Your task to perform on an android device: turn on translation in the chrome app Image 0: 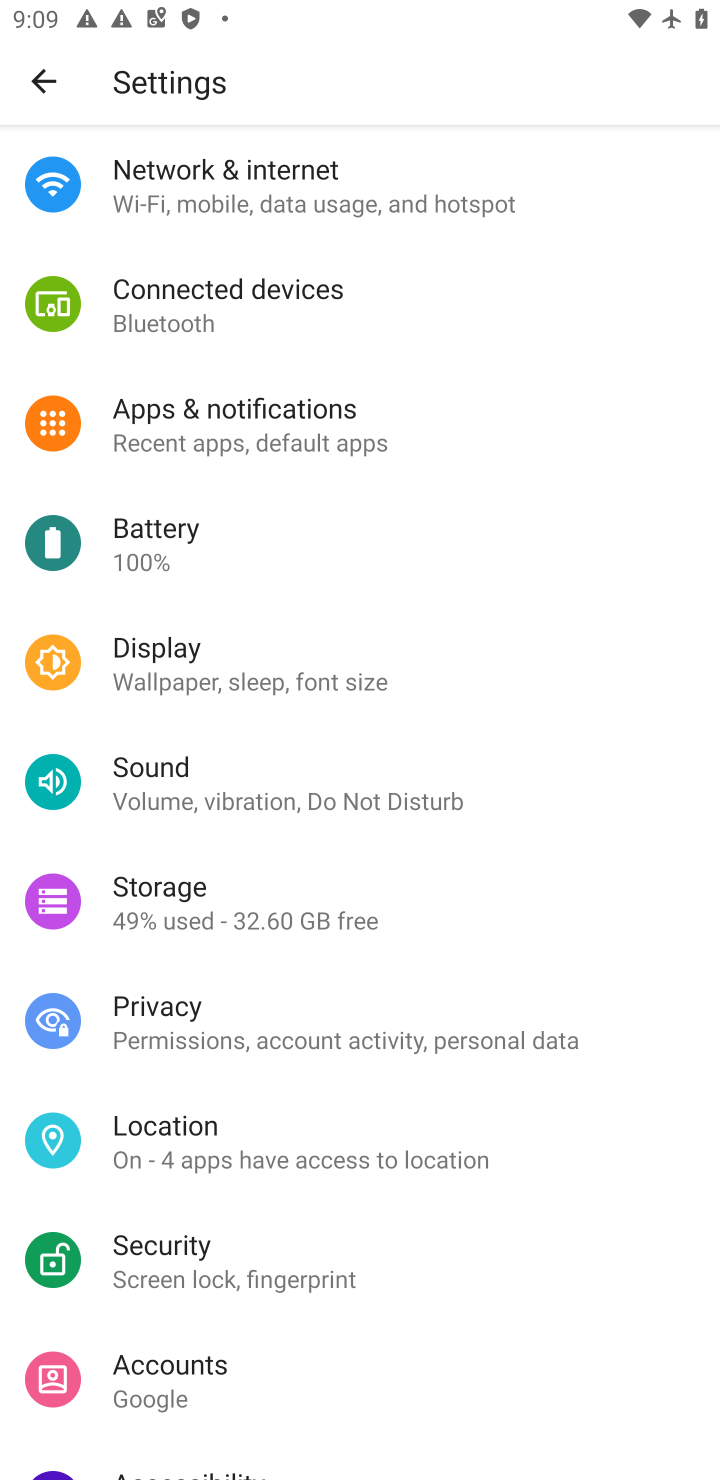
Step 0: press home button
Your task to perform on an android device: turn on translation in the chrome app Image 1: 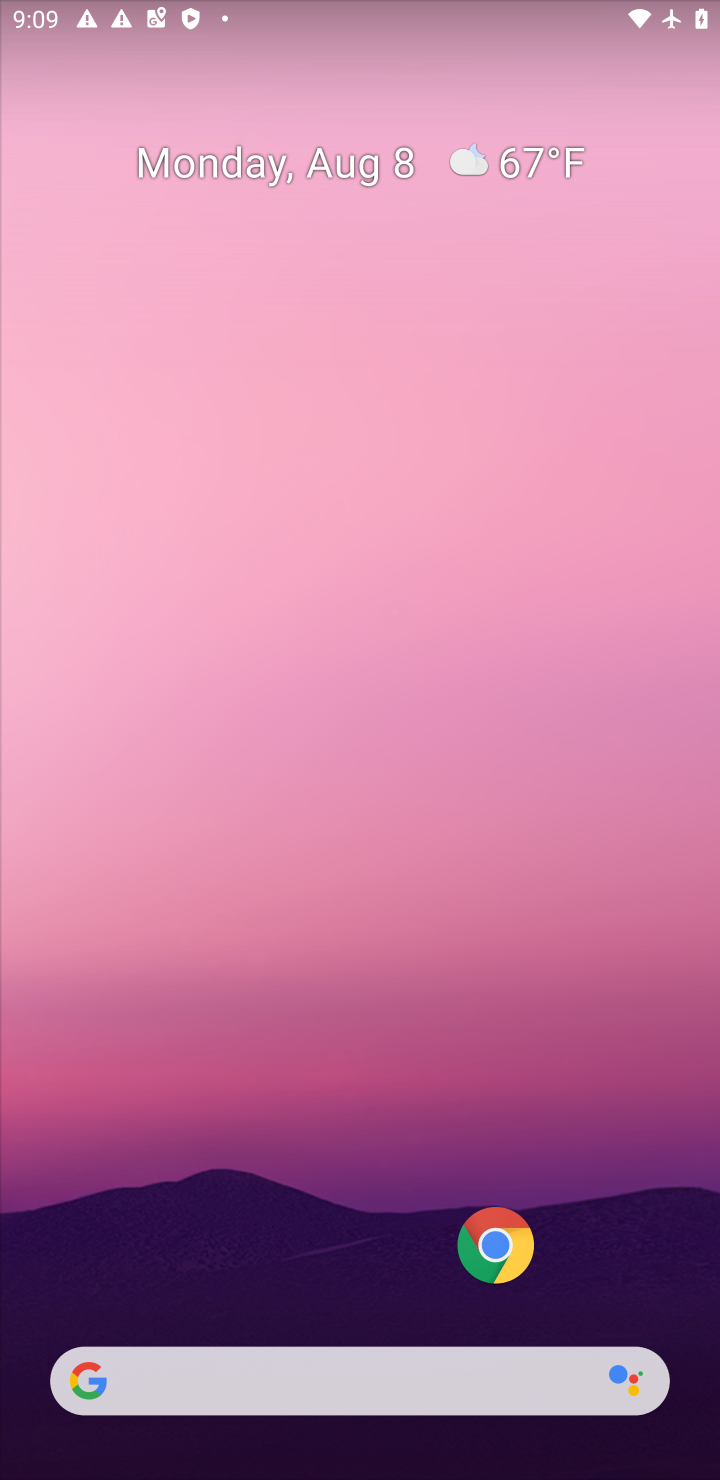
Step 1: click (506, 1236)
Your task to perform on an android device: turn on translation in the chrome app Image 2: 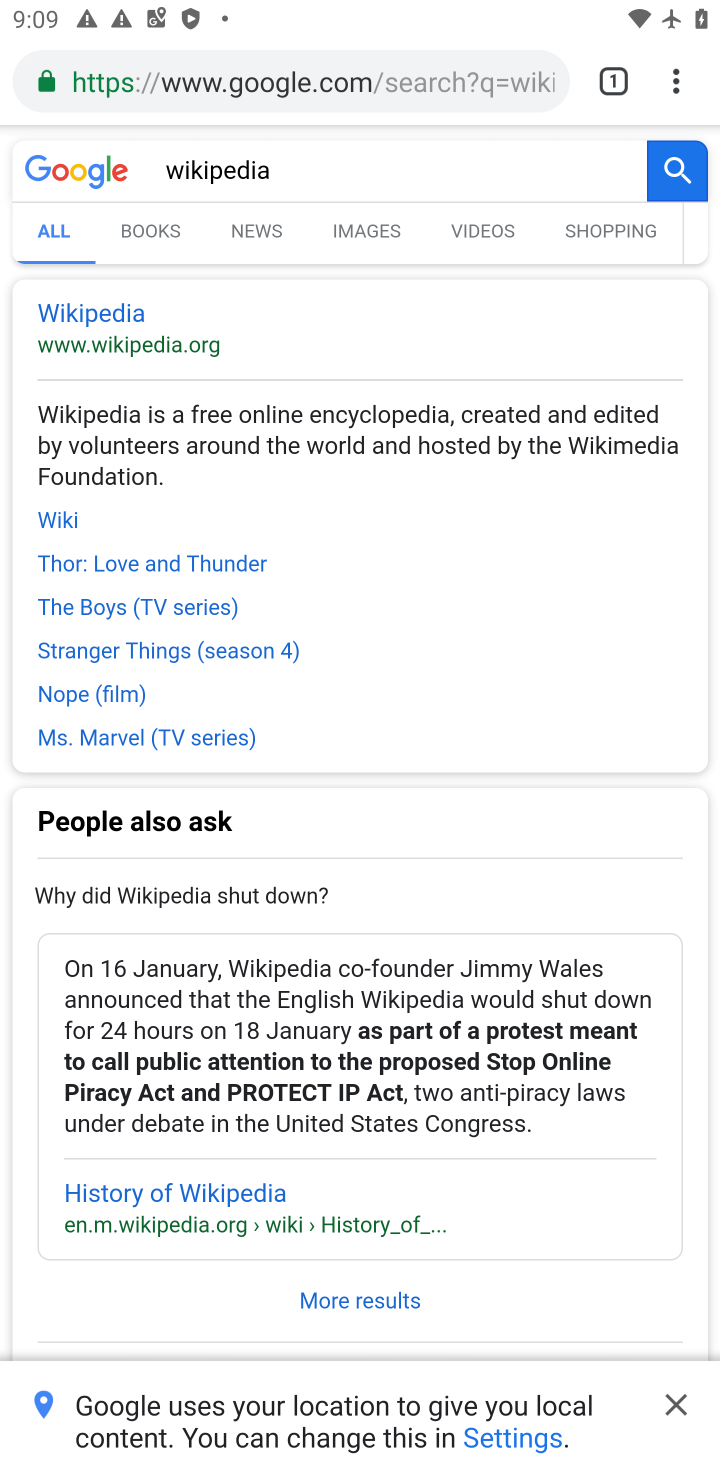
Step 2: click (684, 87)
Your task to perform on an android device: turn on translation in the chrome app Image 3: 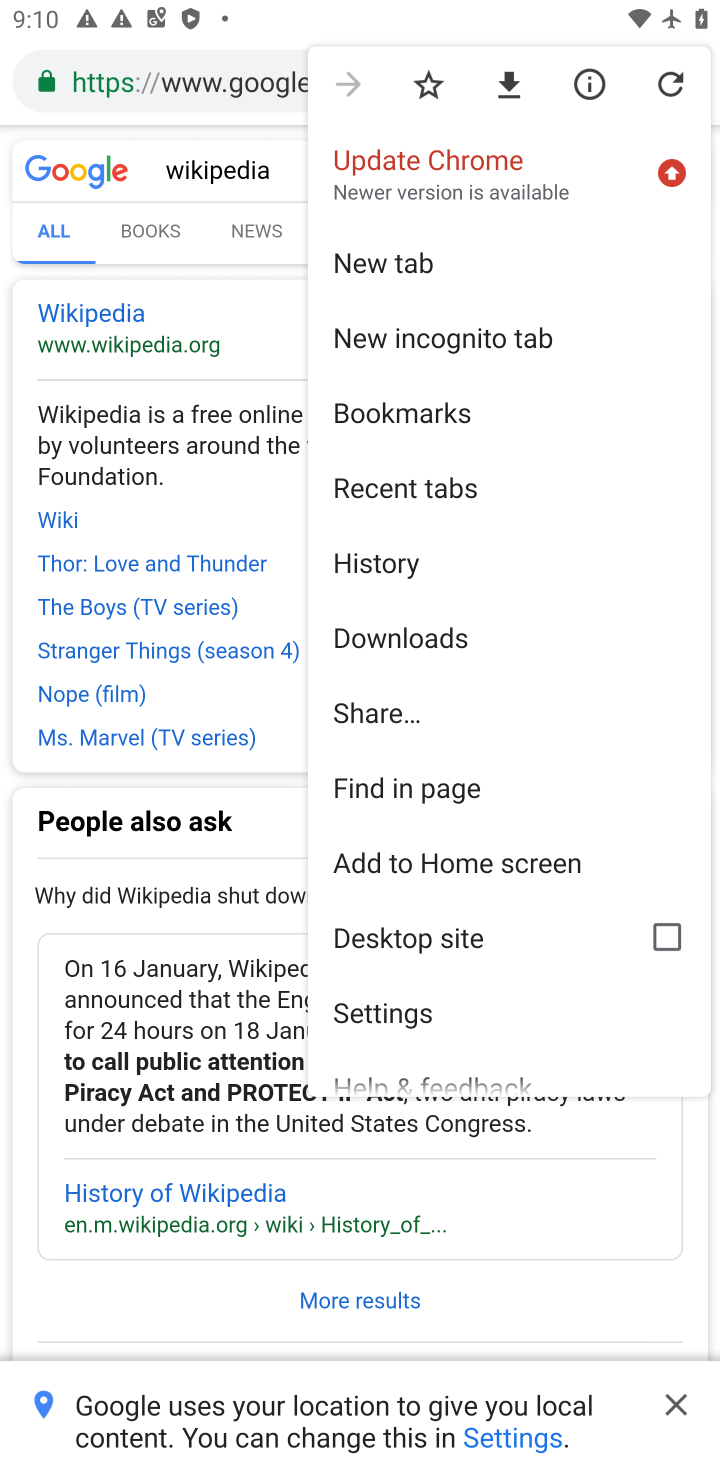
Step 3: click (407, 1002)
Your task to perform on an android device: turn on translation in the chrome app Image 4: 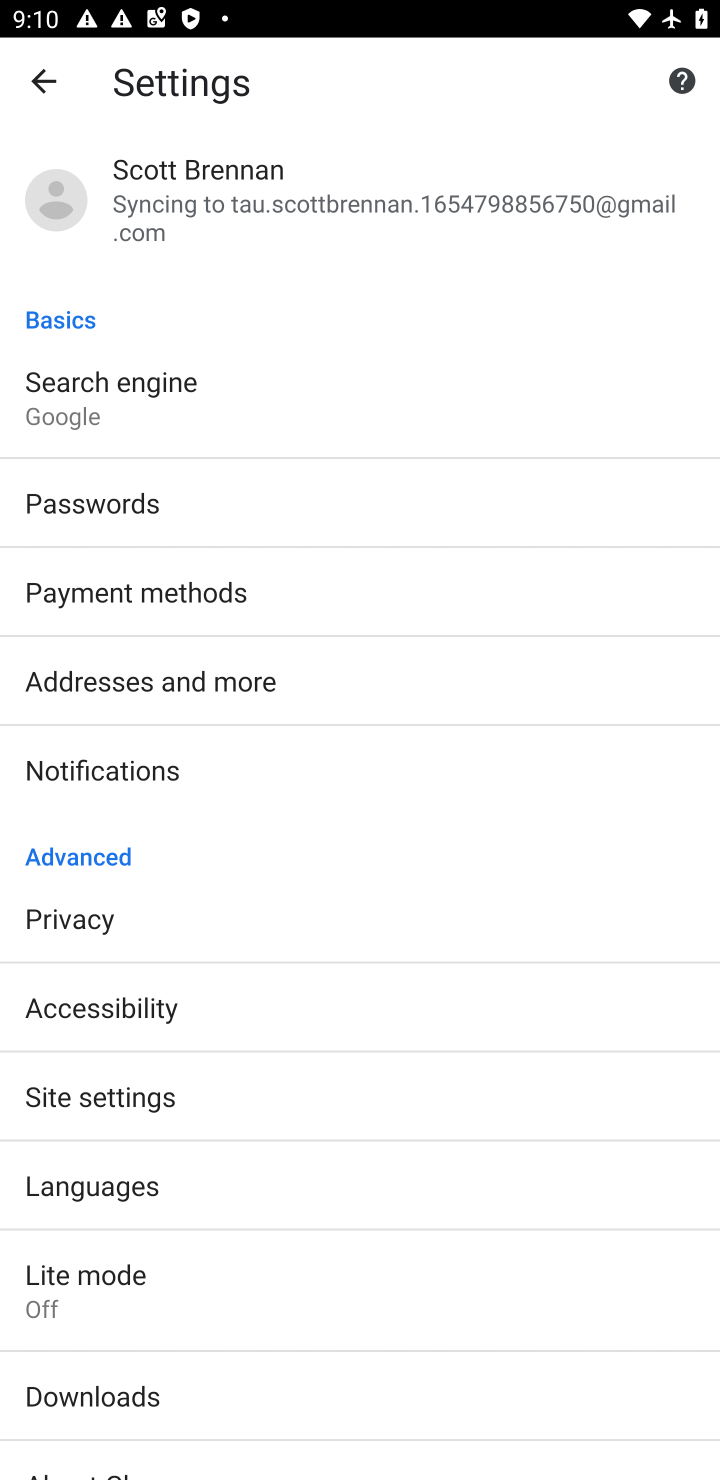
Step 4: click (114, 1189)
Your task to perform on an android device: turn on translation in the chrome app Image 5: 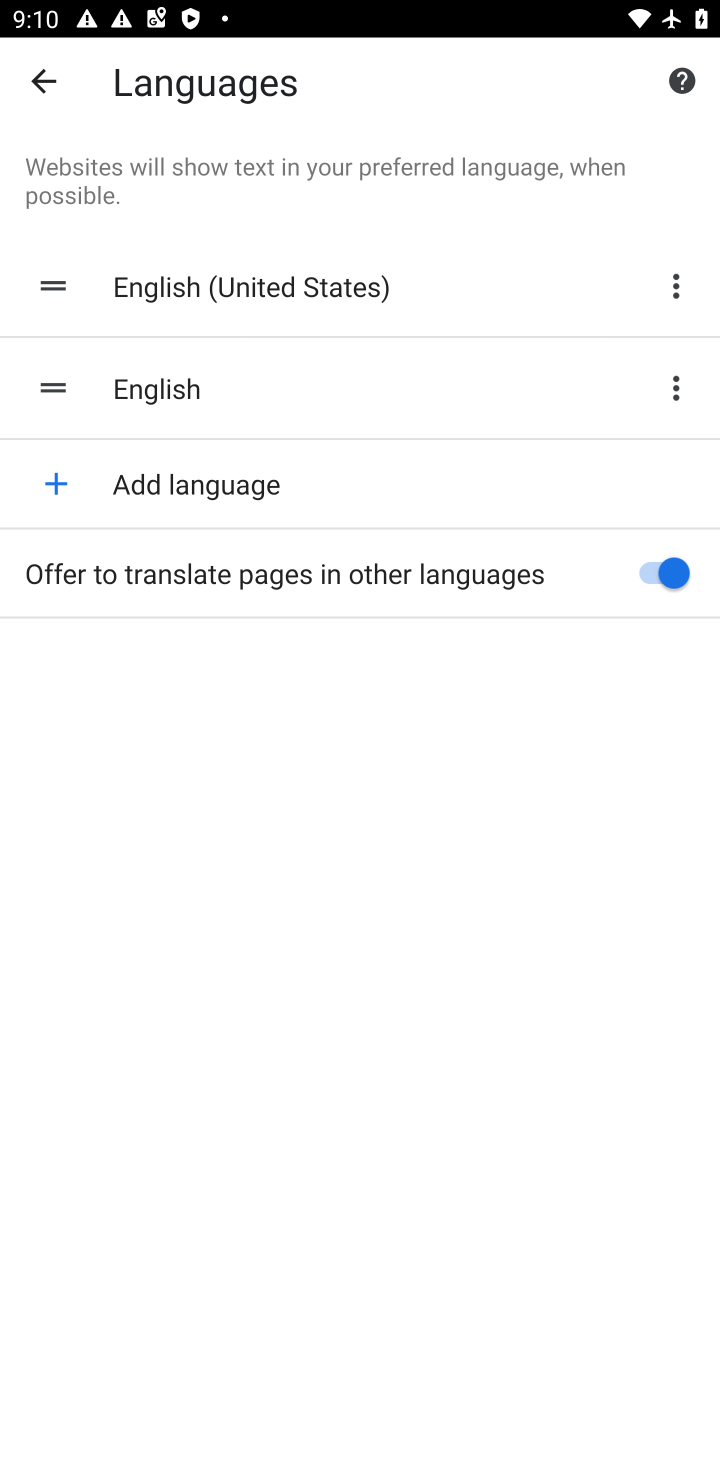
Step 5: task complete